Your task to perform on an android device: Go to Yahoo.com Image 0: 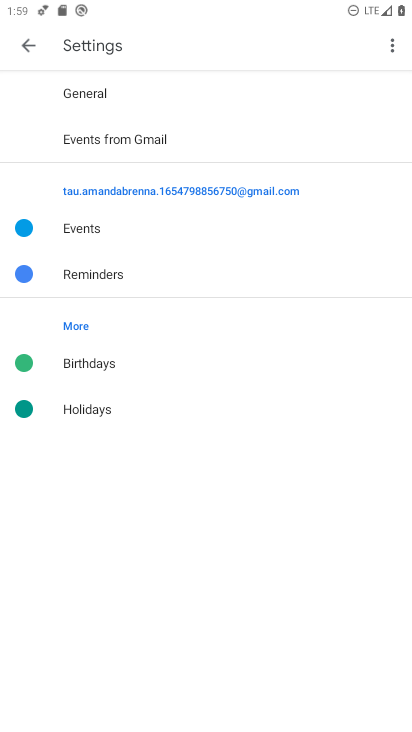
Step 0: press home button
Your task to perform on an android device: Go to Yahoo.com Image 1: 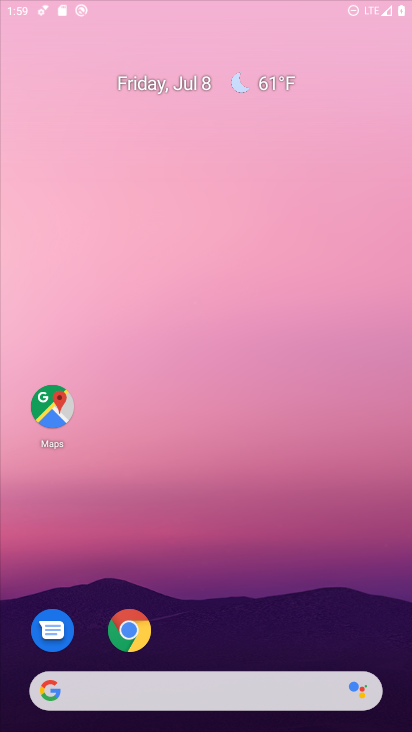
Step 1: drag from (394, 688) to (390, 4)
Your task to perform on an android device: Go to Yahoo.com Image 2: 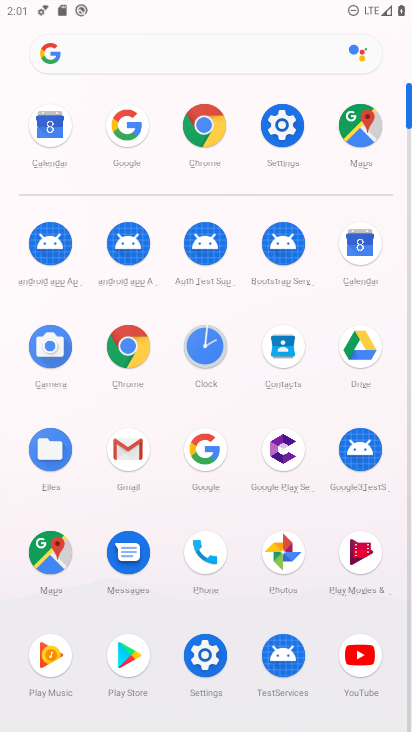
Step 2: click (199, 472)
Your task to perform on an android device: Go to Yahoo.com Image 3: 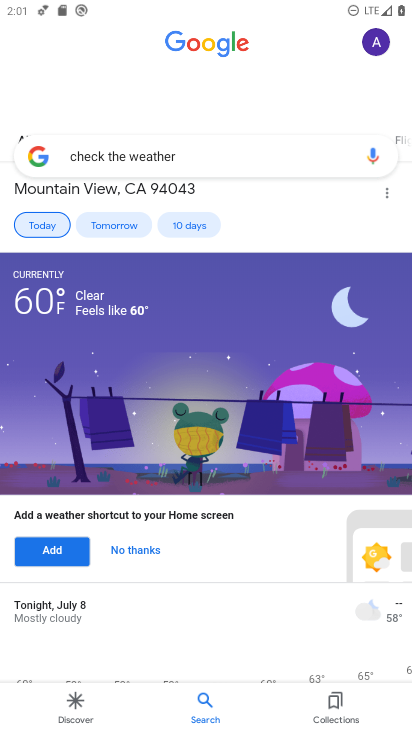
Step 3: press back button
Your task to perform on an android device: Go to Yahoo.com Image 4: 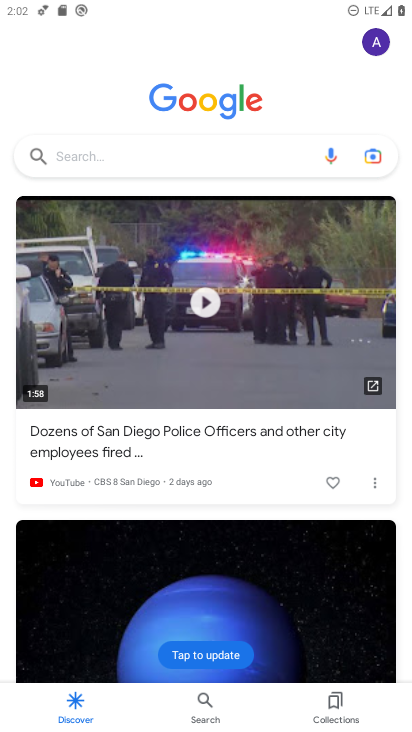
Step 4: click (127, 155)
Your task to perform on an android device: Go to Yahoo.com Image 5: 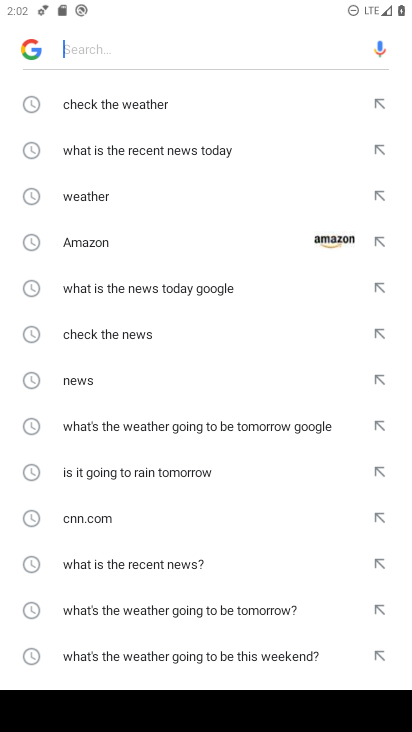
Step 5: type "Yahoo.com"
Your task to perform on an android device: Go to Yahoo.com Image 6: 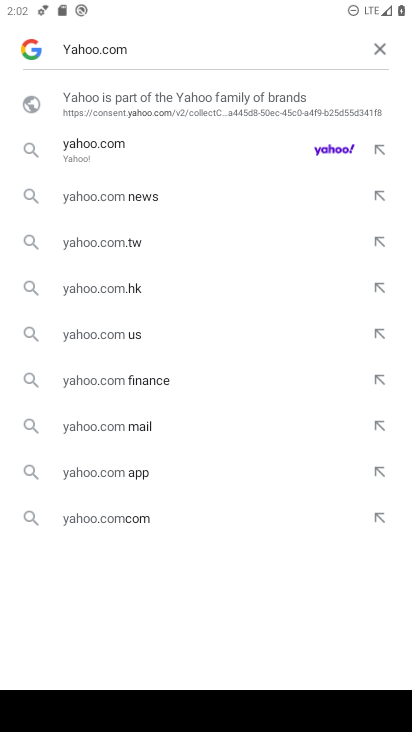
Step 6: click (98, 138)
Your task to perform on an android device: Go to Yahoo.com Image 7: 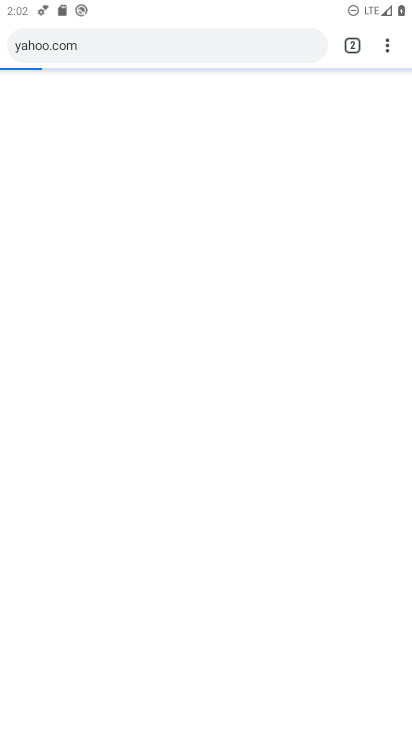
Step 7: task complete